Your task to perform on an android device: toggle javascript in the chrome app Image 0: 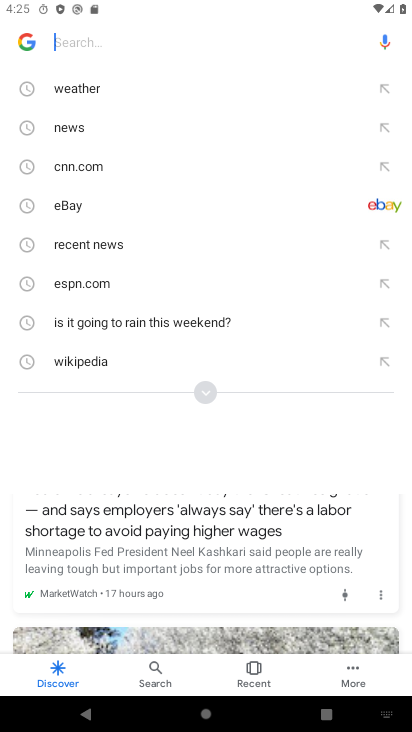
Step 0: press back button
Your task to perform on an android device: toggle javascript in the chrome app Image 1: 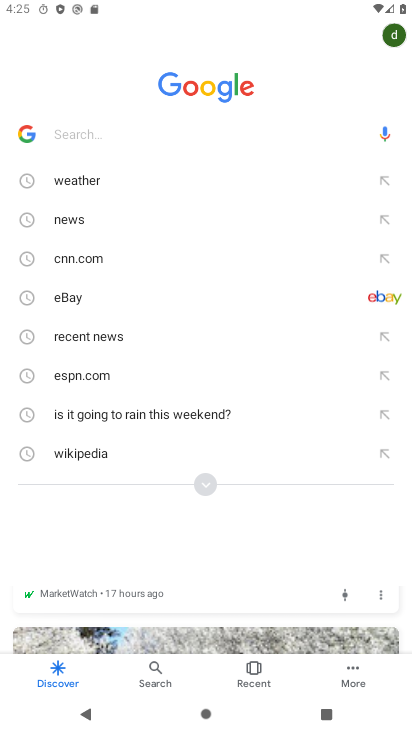
Step 1: press home button
Your task to perform on an android device: toggle javascript in the chrome app Image 2: 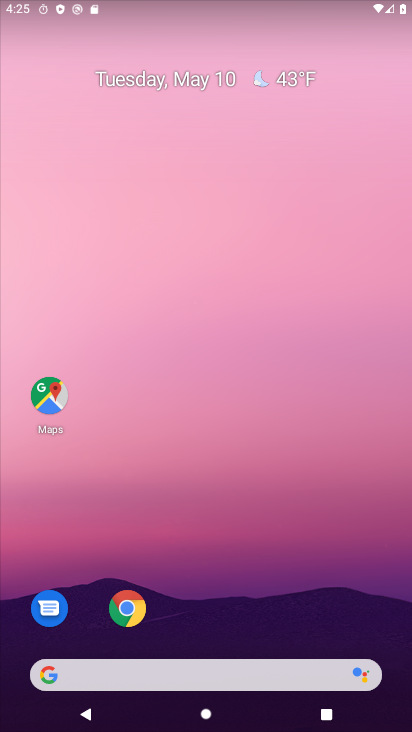
Step 2: drag from (286, 610) to (75, 100)
Your task to perform on an android device: toggle javascript in the chrome app Image 3: 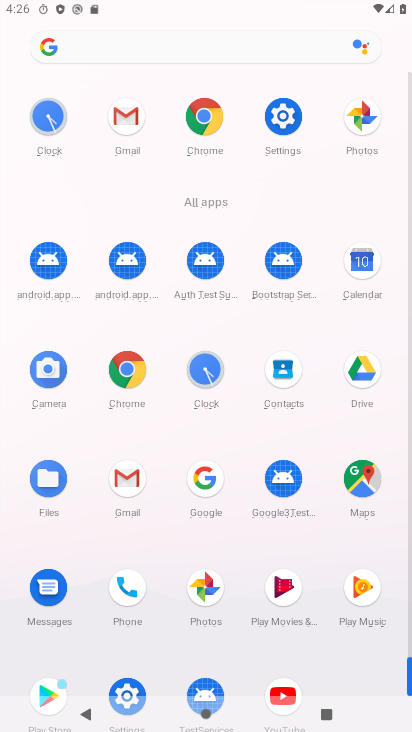
Step 3: click (202, 113)
Your task to perform on an android device: toggle javascript in the chrome app Image 4: 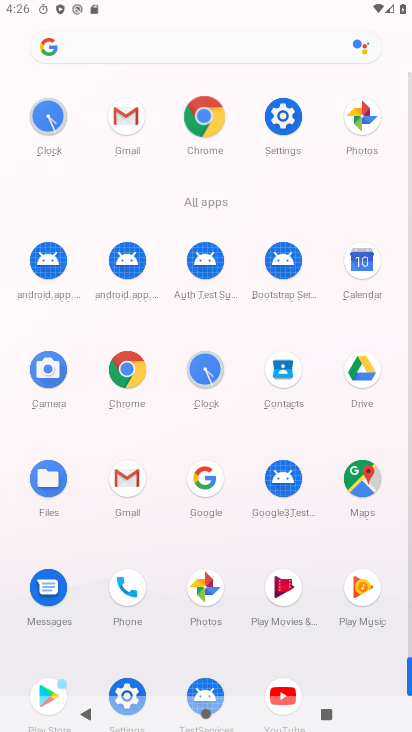
Step 4: click (202, 113)
Your task to perform on an android device: toggle javascript in the chrome app Image 5: 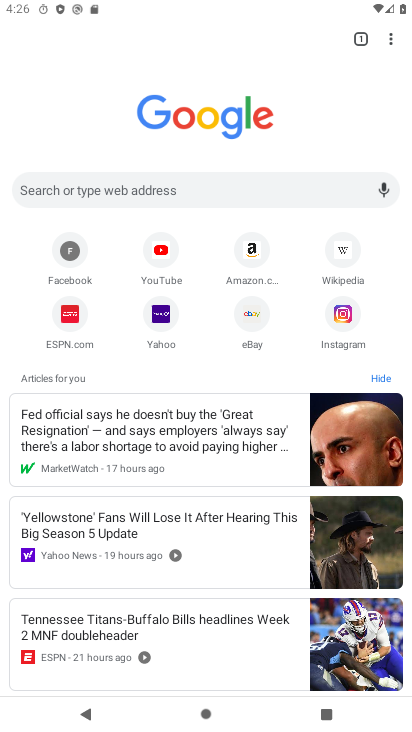
Step 5: drag from (387, 40) to (256, 327)
Your task to perform on an android device: toggle javascript in the chrome app Image 6: 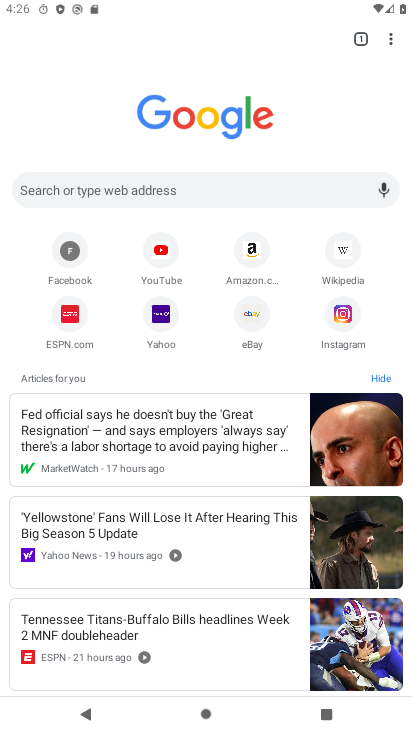
Step 6: click (256, 327)
Your task to perform on an android device: toggle javascript in the chrome app Image 7: 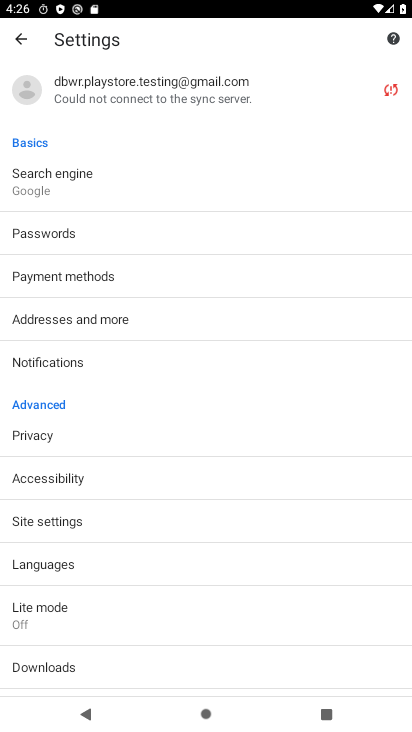
Step 7: click (37, 519)
Your task to perform on an android device: toggle javascript in the chrome app Image 8: 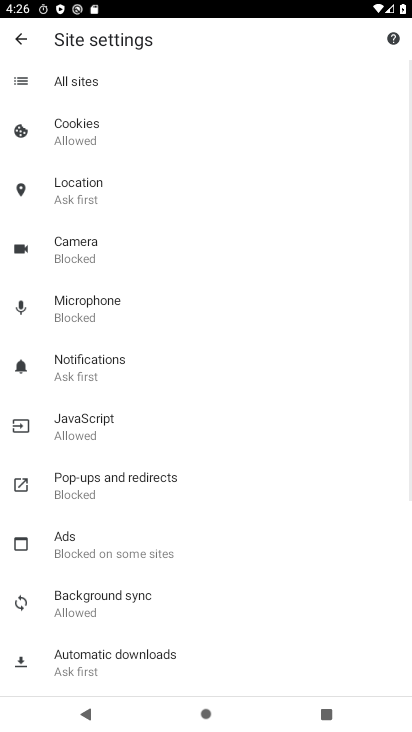
Step 8: click (78, 415)
Your task to perform on an android device: toggle javascript in the chrome app Image 9: 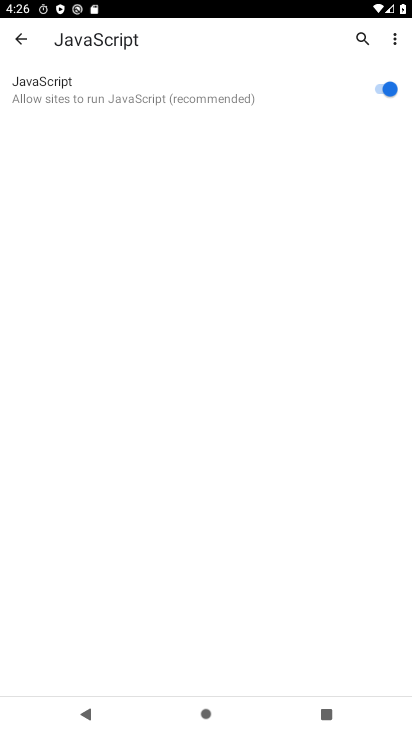
Step 9: click (389, 91)
Your task to perform on an android device: toggle javascript in the chrome app Image 10: 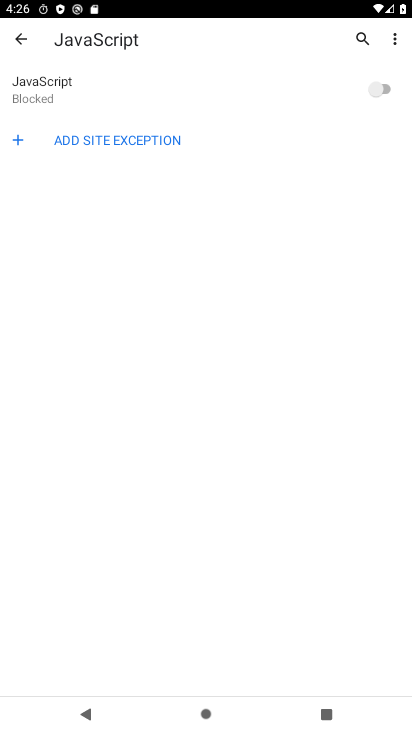
Step 10: task complete